Your task to perform on an android device: Is it going to rain this weekend? Image 0: 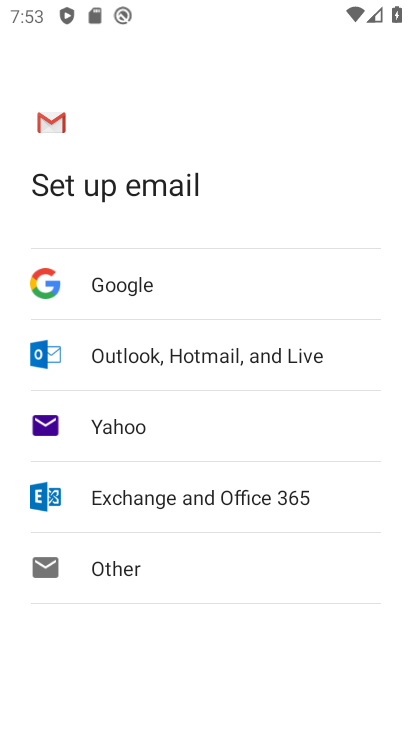
Step 0: press home button
Your task to perform on an android device: Is it going to rain this weekend? Image 1: 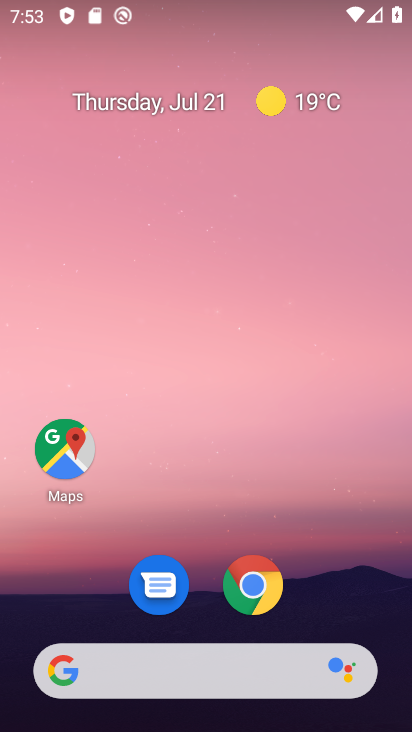
Step 1: click (245, 680)
Your task to perform on an android device: Is it going to rain this weekend? Image 2: 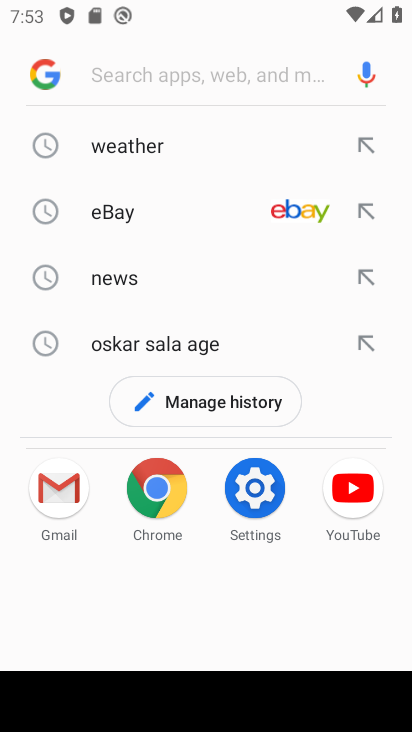
Step 2: click (137, 143)
Your task to perform on an android device: Is it going to rain this weekend? Image 3: 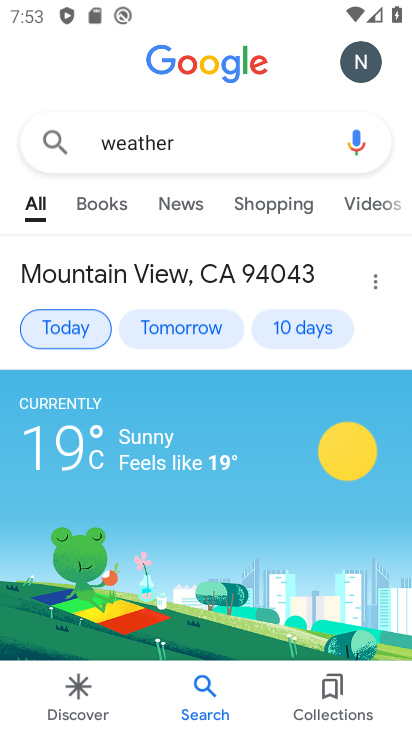
Step 3: click (310, 327)
Your task to perform on an android device: Is it going to rain this weekend? Image 4: 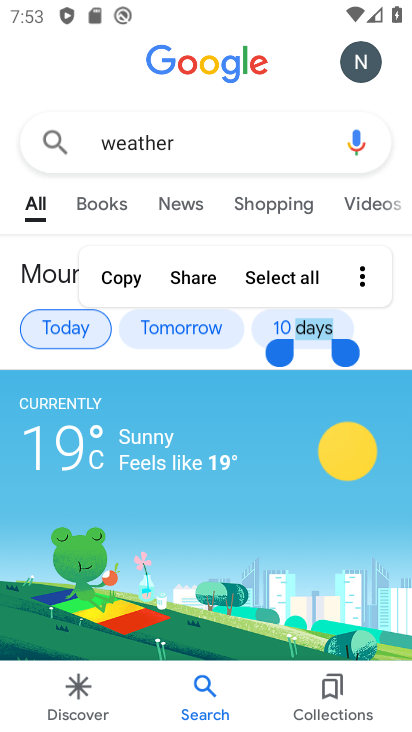
Step 4: click (281, 412)
Your task to perform on an android device: Is it going to rain this weekend? Image 5: 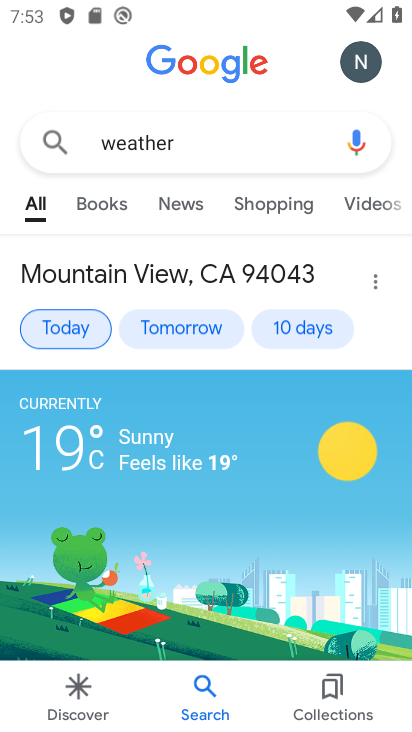
Step 5: click (309, 325)
Your task to perform on an android device: Is it going to rain this weekend? Image 6: 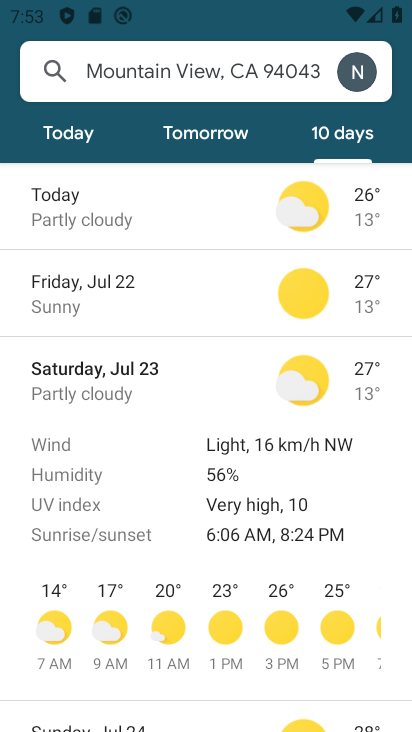
Step 6: task complete